Your task to perform on an android device: Search for apple airpods pro on target.com, select the first entry, and add it to the cart. Image 0: 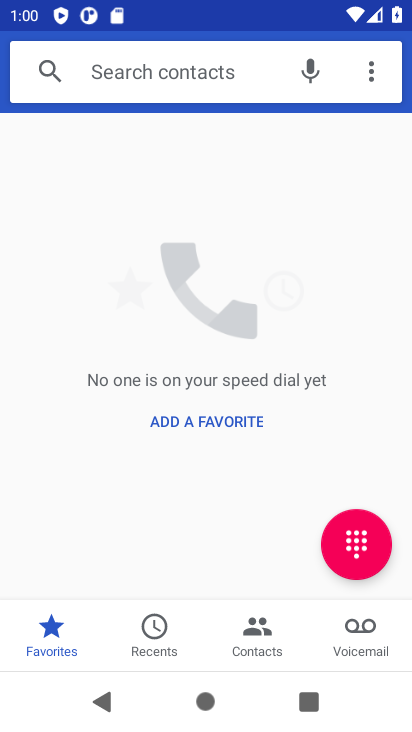
Step 0: press home button
Your task to perform on an android device: Search for apple airpods pro on target.com, select the first entry, and add it to the cart. Image 1: 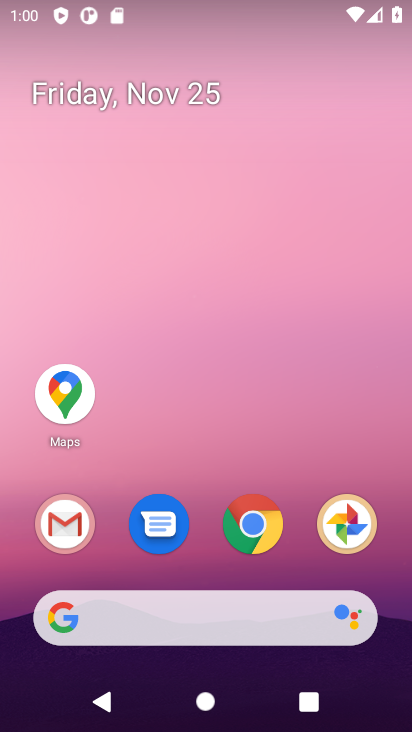
Step 1: click (254, 526)
Your task to perform on an android device: Search for apple airpods pro on target.com, select the first entry, and add it to the cart. Image 2: 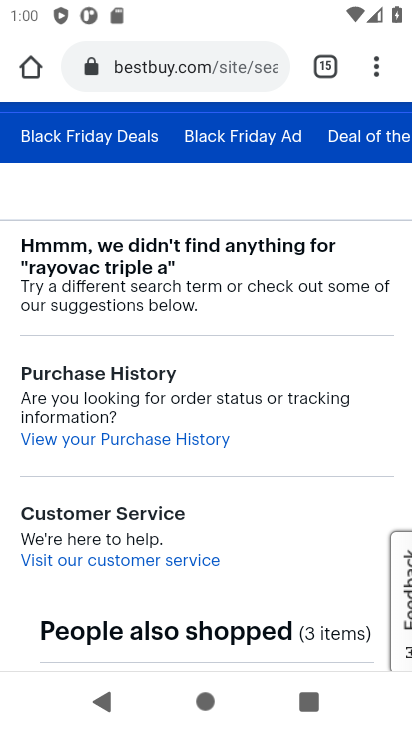
Step 2: click (176, 59)
Your task to perform on an android device: Search for apple airpods pro on target.com, select the first entry, and add it to the cart. Image 3: 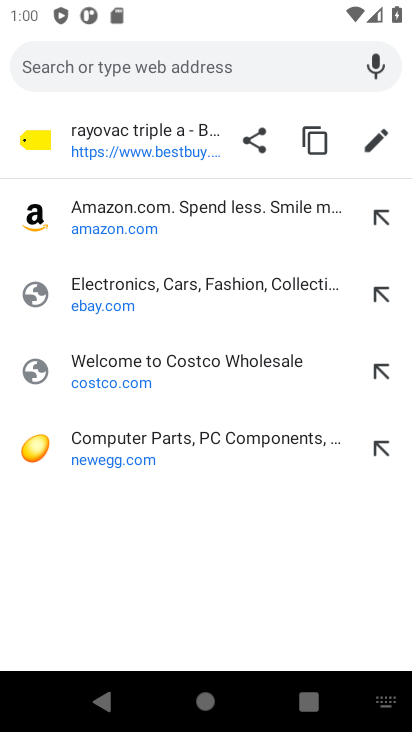
Step 3: type "target.com"
Your task to perform on an android device: Search for apple airpods pro on target.com, select the first entry, and add it to the cart. Image 4: 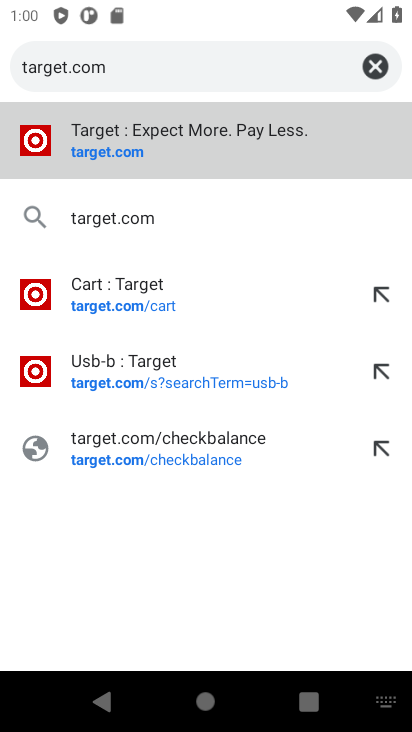
Step 4: click (87, 151)
Your task to perform on an android device: Search for apple airpods pro on target.com, select the first entry, and add it to the cart. Image 5: 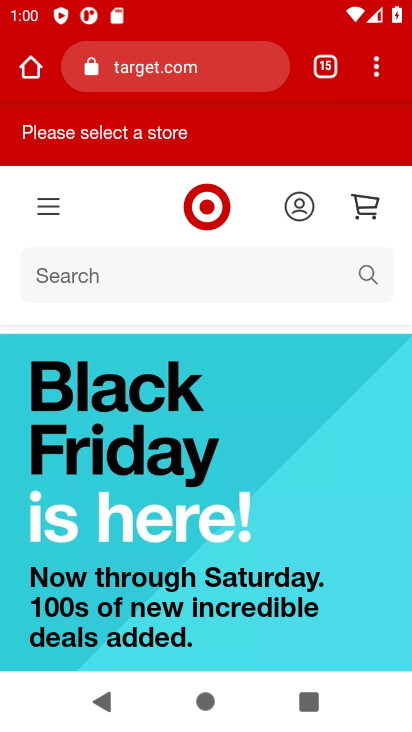
Step 5: click (363, 278)
Your task to perform on an android device: Search for apple airpods pro on target.com, select the first entry, and add it to the cart. Image 6: 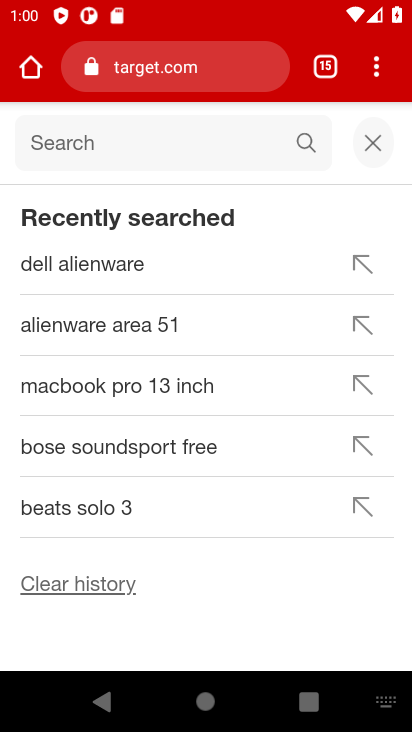
Step 6: type "apple airpods pro"
Your task to perform on an android device: Search for apple airpods pro on target.com, select the first entry, and add it to the cart. Image 7: 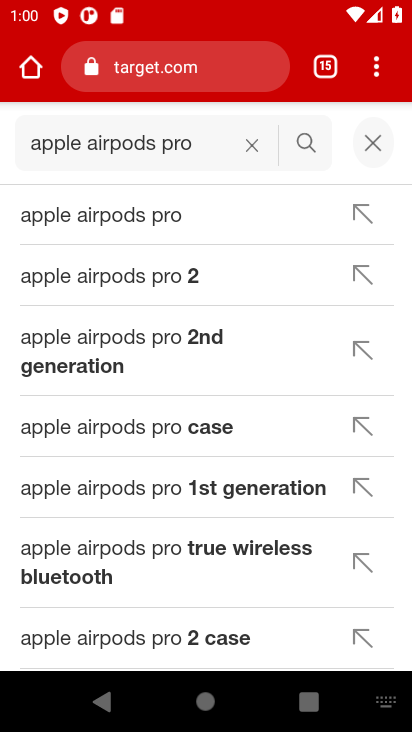
Step 7: click (92, 220)
Your task to perform on an android device: Search for apple airpods pro on target.com, select the first entry, and add it to the cart. Image 8: 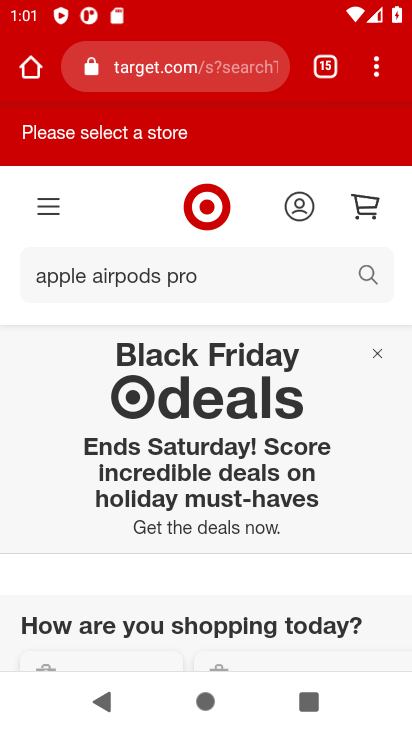
Step 8: drag from (215, 394) to (224, 260)
Your task to perform on an android device: Search for apple airpods pro on target.com, select the first entry, and add it to the cart. Image 9: 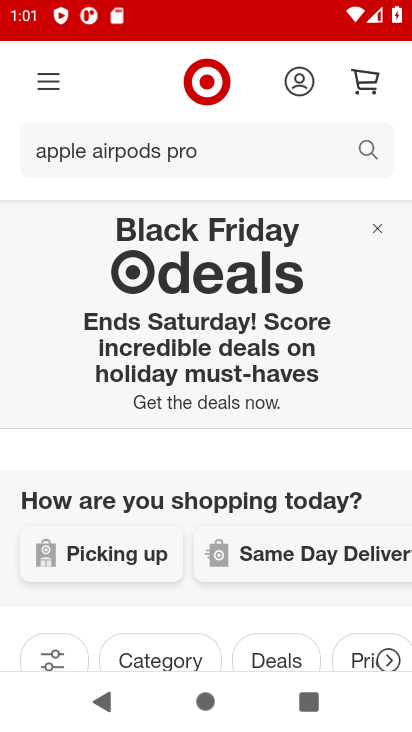
Step 9: drag from (179, 474) to (204, 182)
Your task to perform on an android device: Search for apple airpods pro on target.com, select the first entry, and add it to the cart. Image 10: 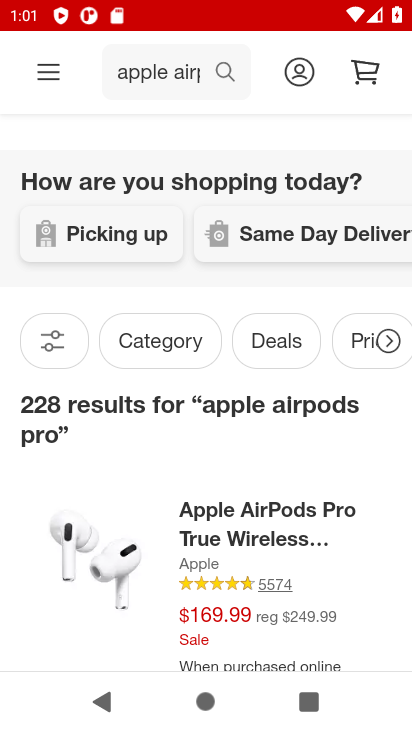
Step 10: drag from (155, 470) to (211, 214)
Your task to perform on an android device: Search for apple airpods pro on target.com, select the first entry, and add it to the cart. Image 11: 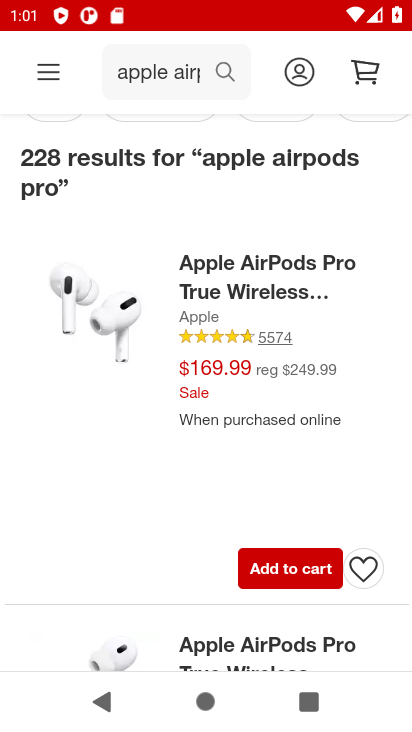
Step 11: click (267, 578)
Your task to perform on an android device: Search for apple airpods pro on target.com, select the first entry, and add it to the cart. Image 12: 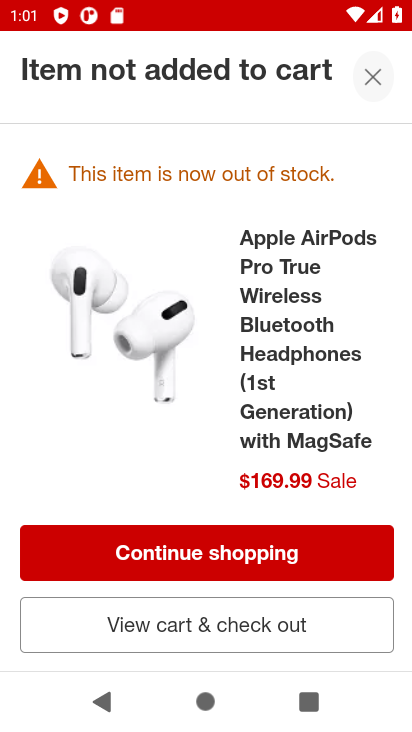
Step 12: task complete